Your task to perform on an android device: uninstall "Calculator" Image 0: 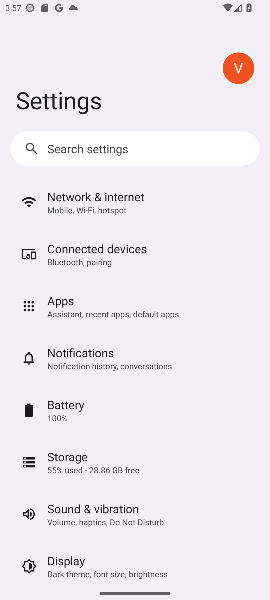
Step 0: press home button
Your task to perform on an android device: uninstall "Calculator" Image 1: 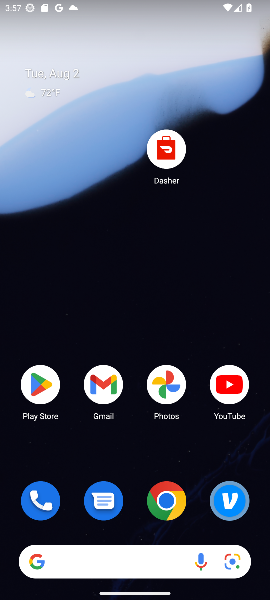
Step 1: click (40, 388)
Your task to perform on an android device: uninstall "Calculator" Image 2: 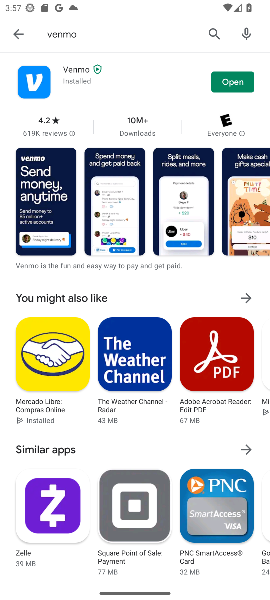
Step 2: click (215, 34)
Your task to perform on an android device: uninstall "Calculator" Image 3: 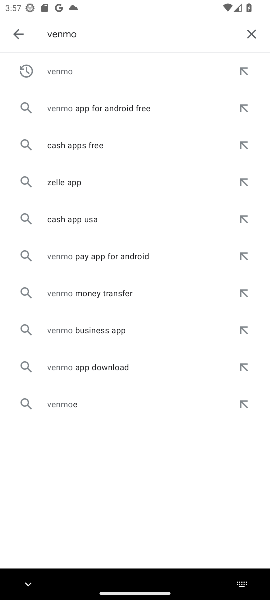
Step 3: click (249, 37)
Your task to perform on an android device: uninstall "Calculator" Image 4: 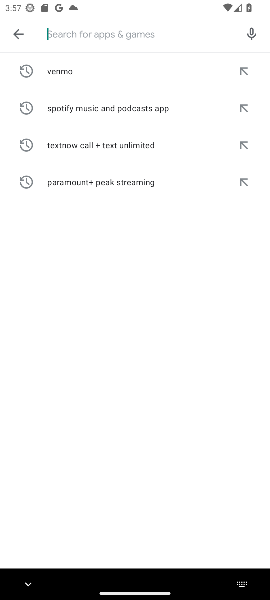
Step 4: type "Calculator"
Your task to perform on an android device: uninstall "Calculator" Image 5: 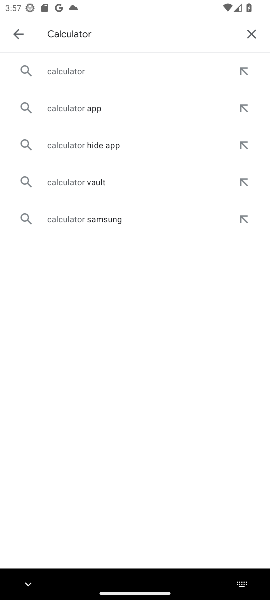
Step 5: click (61, 72)
Your task to perform on an android device: uninstall "Calculator" Image 6: 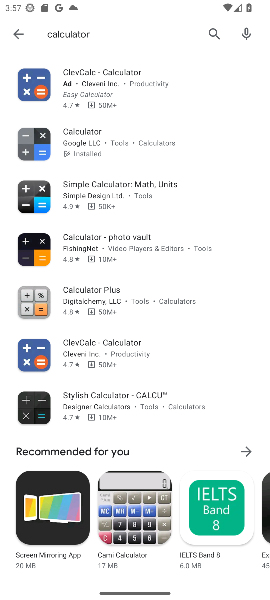
Step 6: click (71, 145)
Your task to perform on an android device: uninstall "Calculator" Image 7: 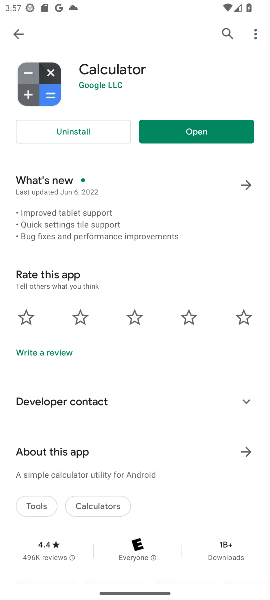
Step 7: click (68, 132)
Your task to perform on an android device: uninstall "Calculator" Image 8: 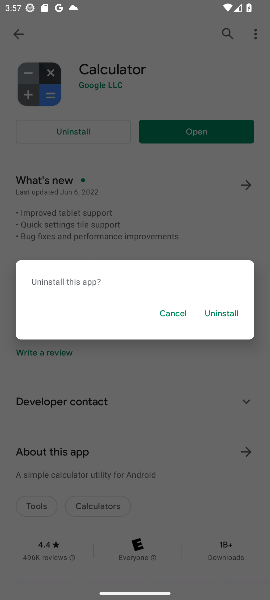
Step 8: click (235, 314)
Your task to perform on an android device: uninstall "Calculator" Image 9: 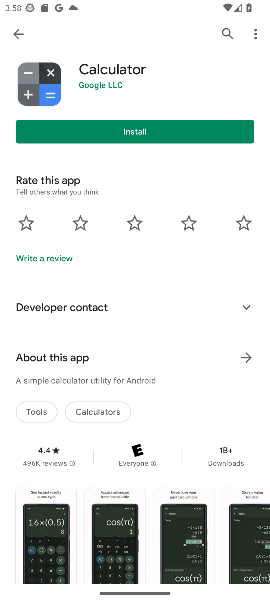
Step 9: task complete